Your task to perform on an android device: Open calendar and show me the fourth week of next month Image 0: 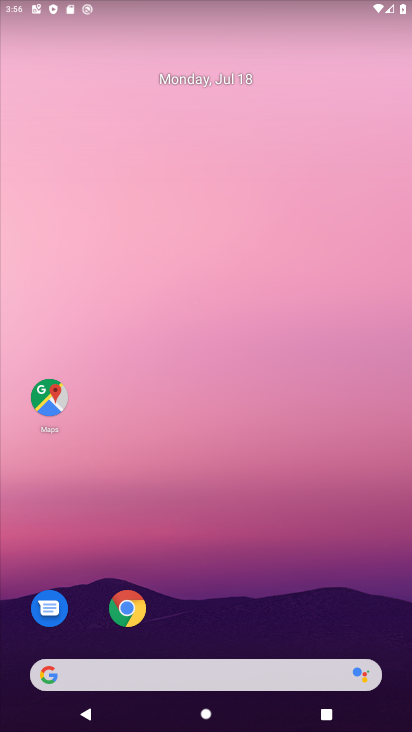
Step 0: drag from (316, 583) to (301, 115)
Your task to perform on an android device: Open calendar and show me the fourth week of next month Image 1: 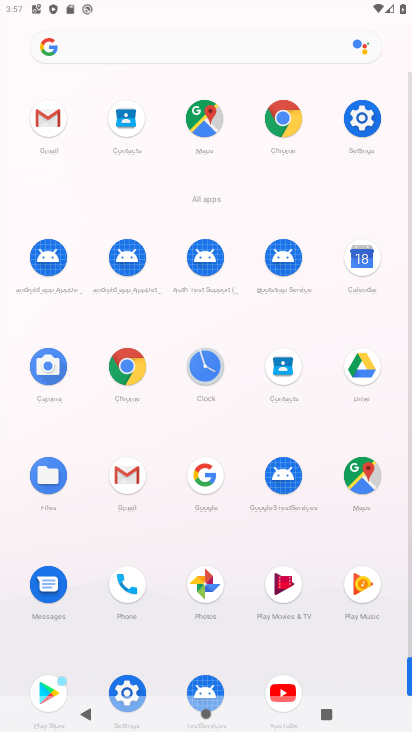
Step 1: click (358, 266)
Your task to perform on an android device: Open calendar and show me the fourth week of next month Image 2: 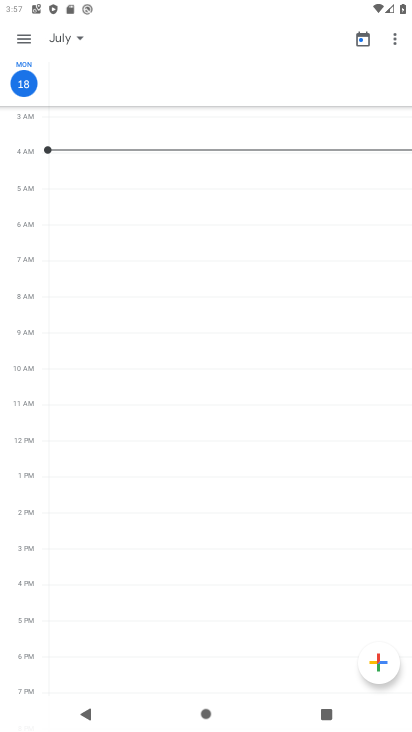
Step 2: task complete